Your task to perform on an android device: Show me the alarms in the clock app Image 0: 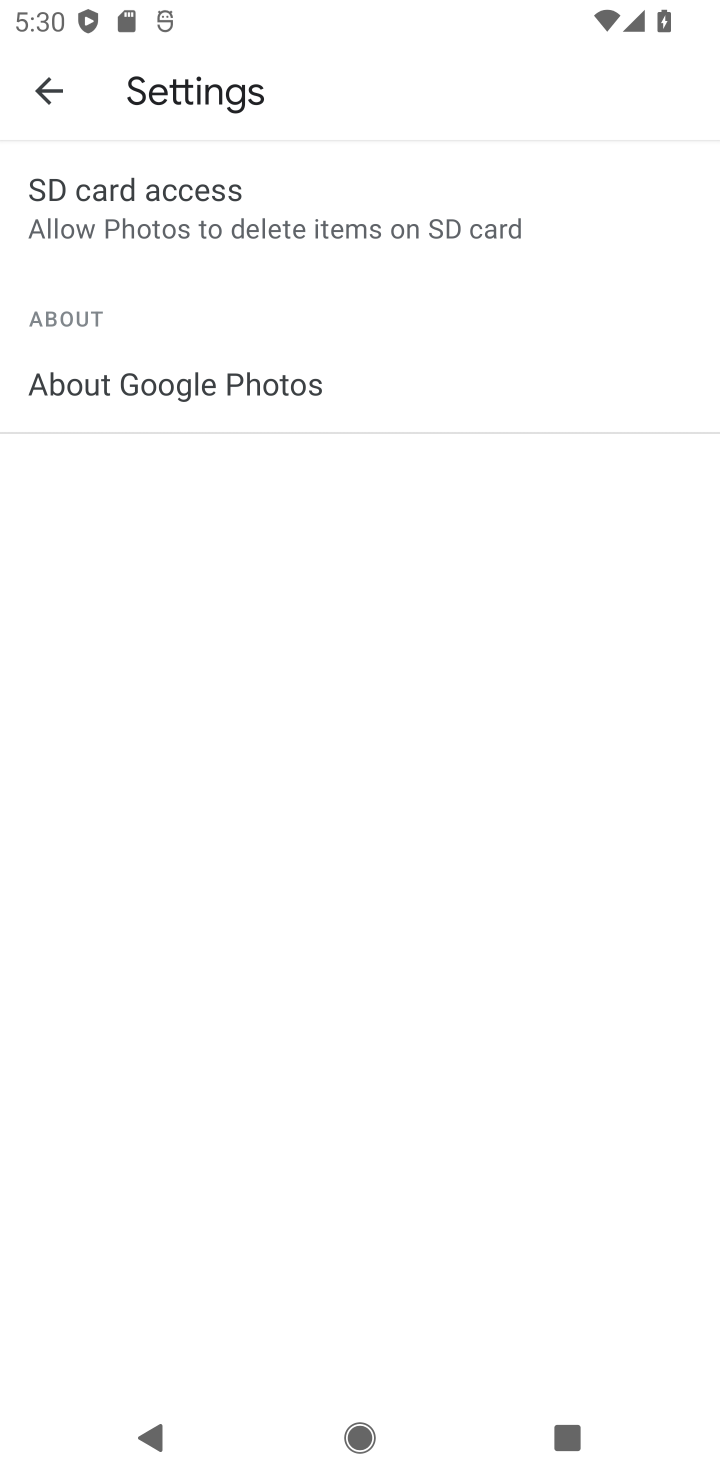
Step 0: press home button
Your task to perform on an android device: Show me the alarms in the clock app Image 1: 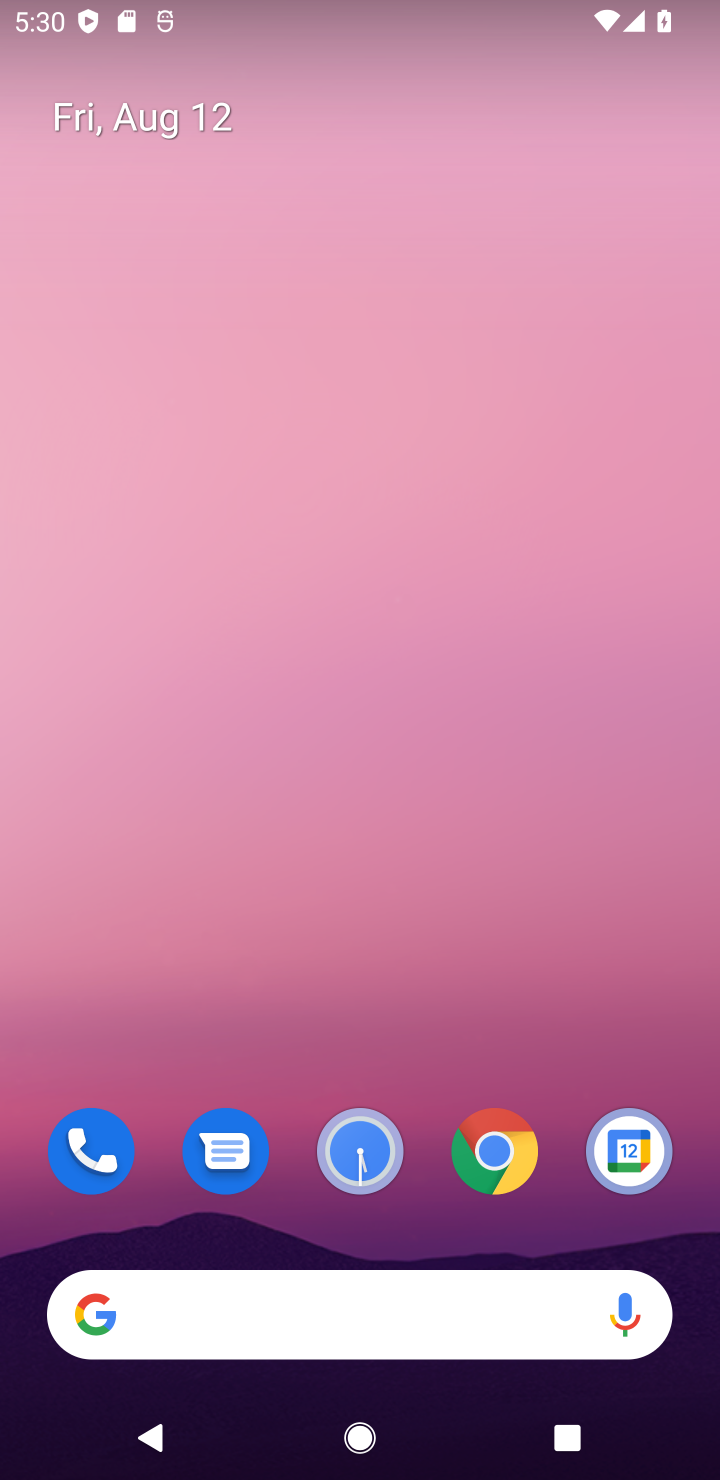
Step 1: drag from (584, 1047) to (517, 126)
Your task to perform on an android device: Show me the alarms in the clock app Image 2: 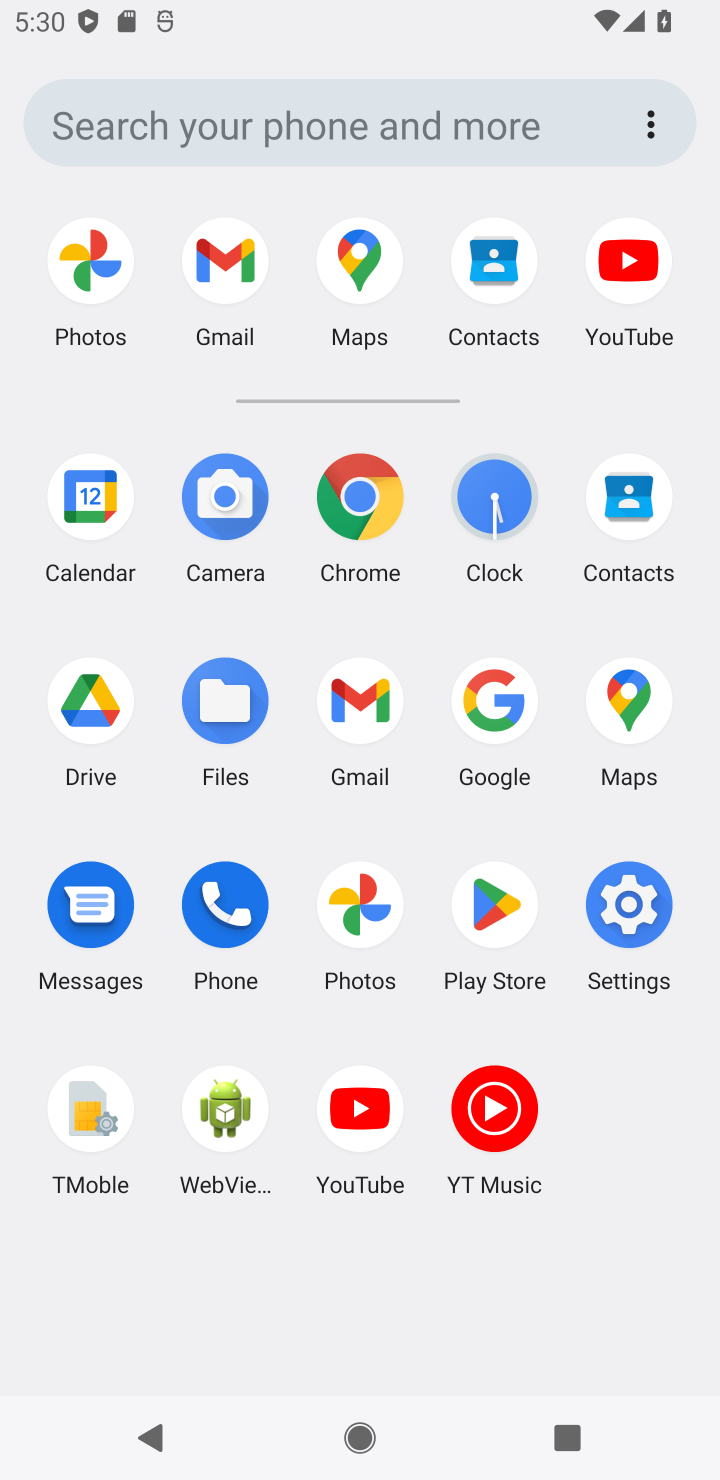
Step 2: click (495, 488)
Your task to perform on an android device: Show me the alarms in the clock app Image 3: 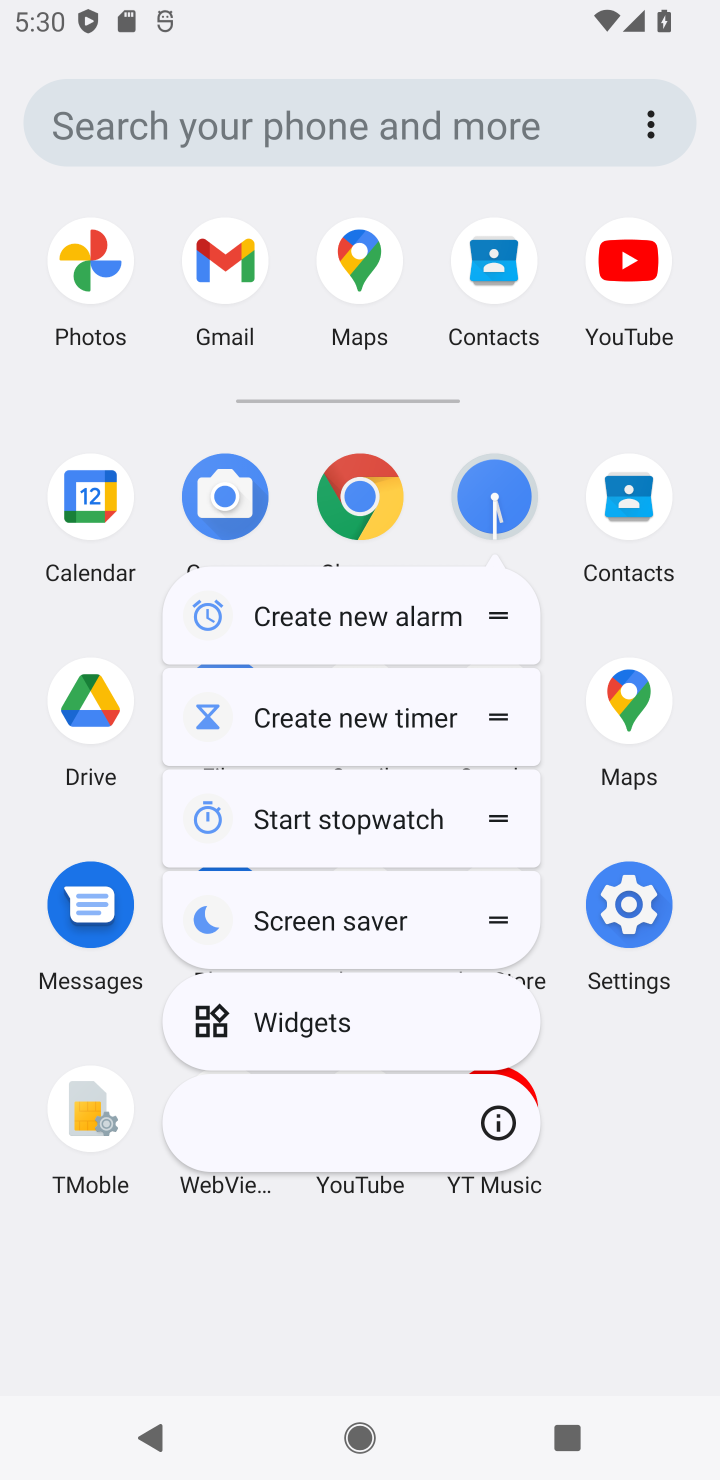
Step 3: click (493, 495)
Your task to perform on an android device: Show me the alarms in the clock app Image 4: 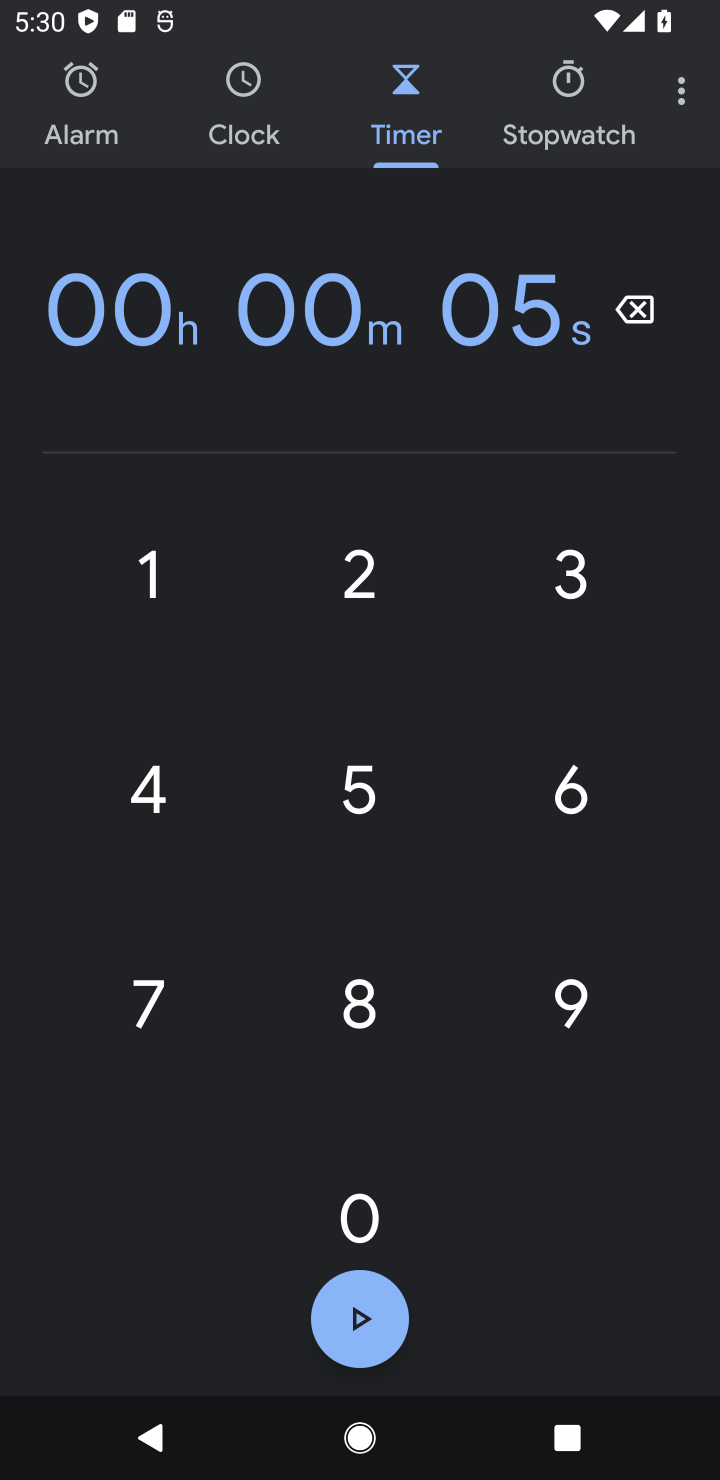
Step 4: click (125, 103)
Your task to perform on an android device: Show me the alarms in the clock app Image 5: 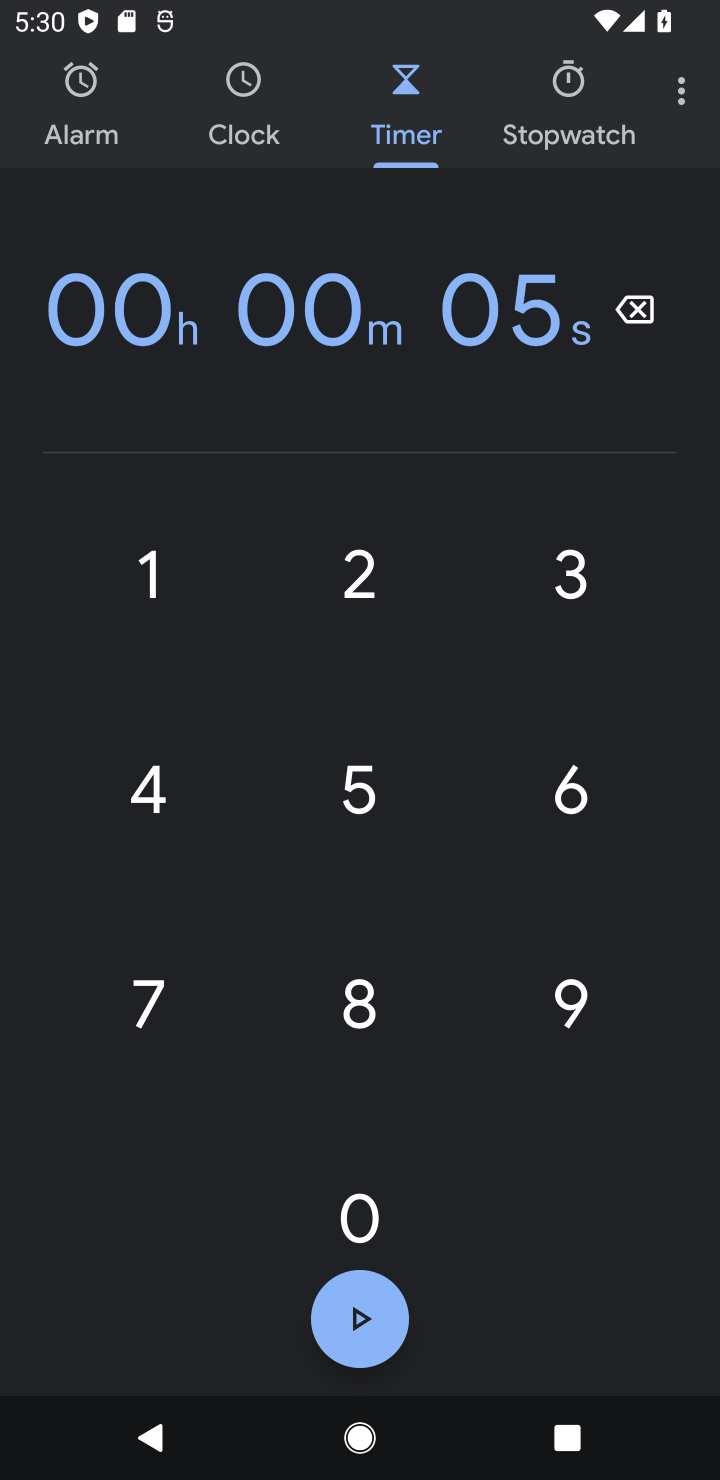
Step 5: click (118, 82)
Your task to perform on an android device: Show me the alarms in the clock app Image 6: 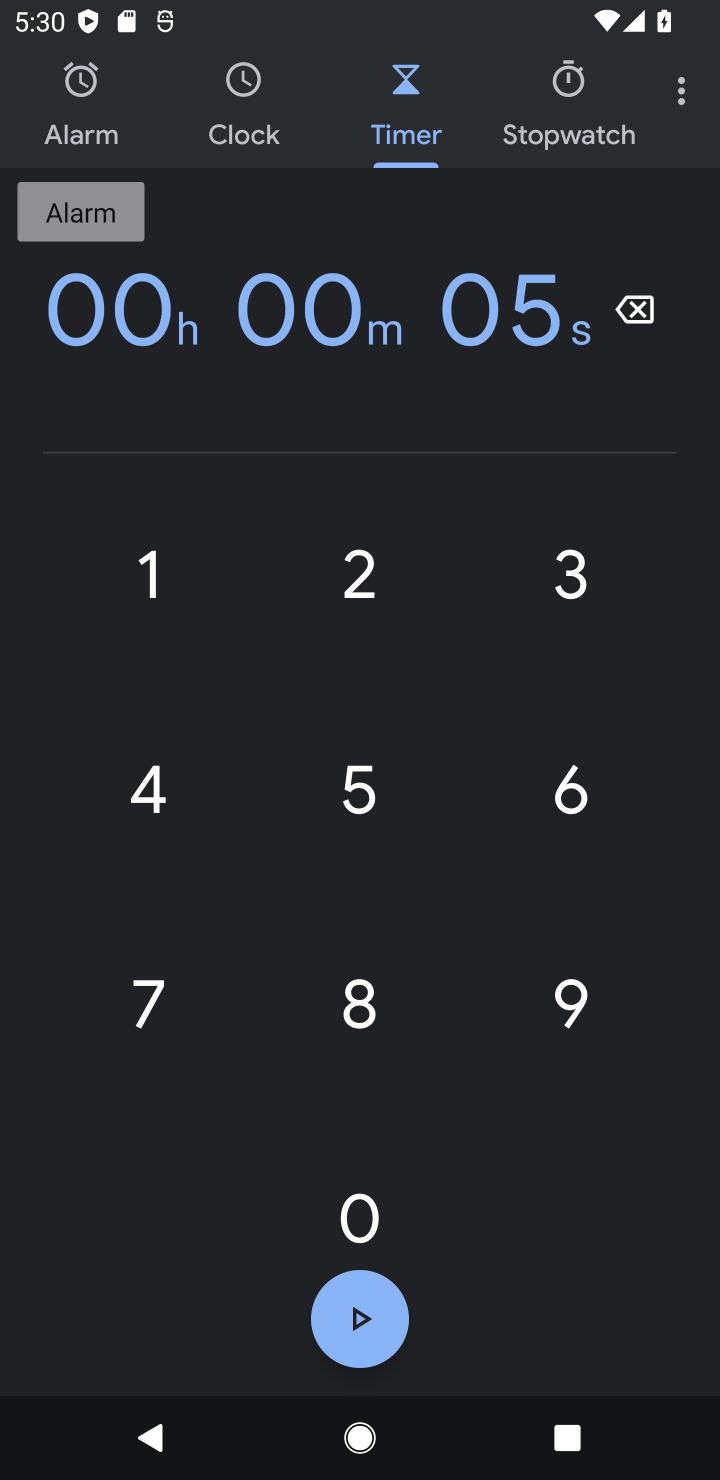
Step 6: click (118, 98)
Your task to perform on an android device: Show me the alarms in the clock app Image 7: 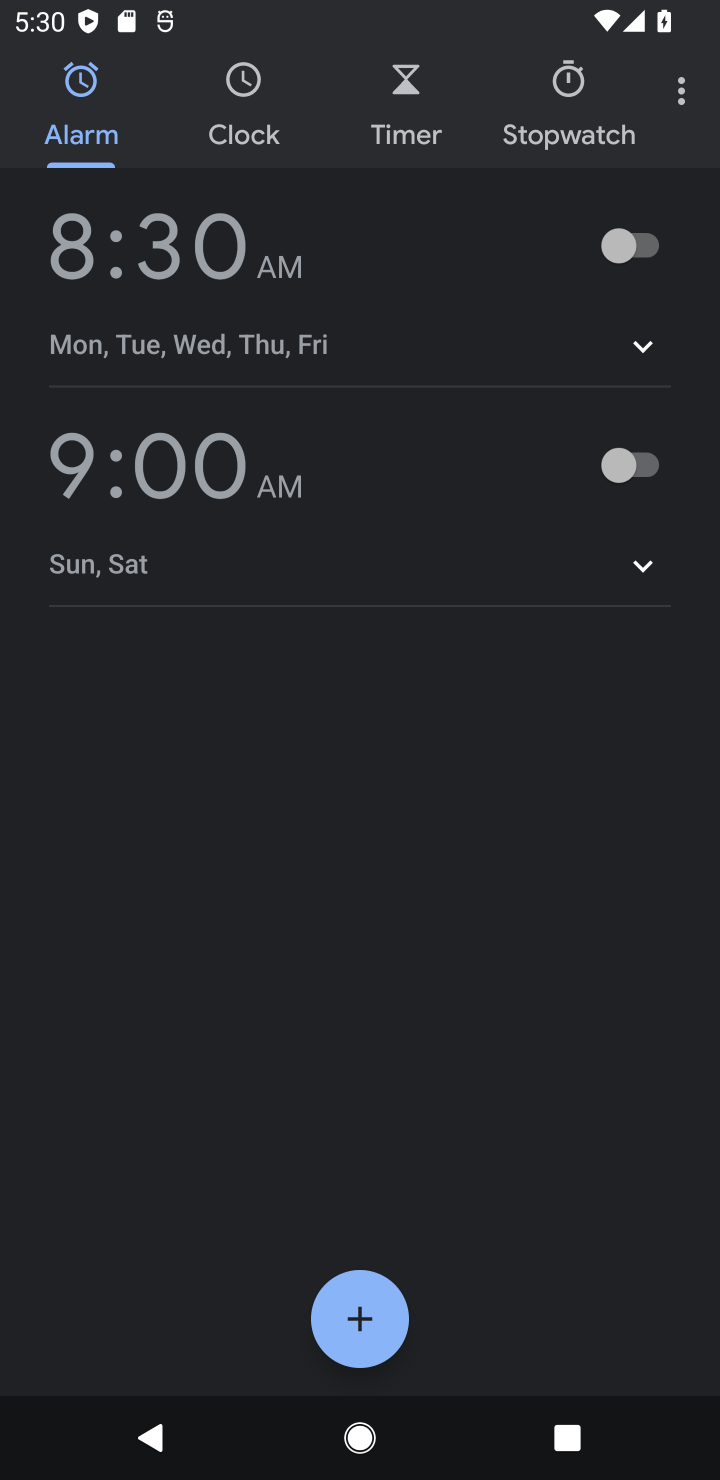
Step 7: task complete